Your task to perform on an android device: Set the phone to "Do not disturb". Image 0: 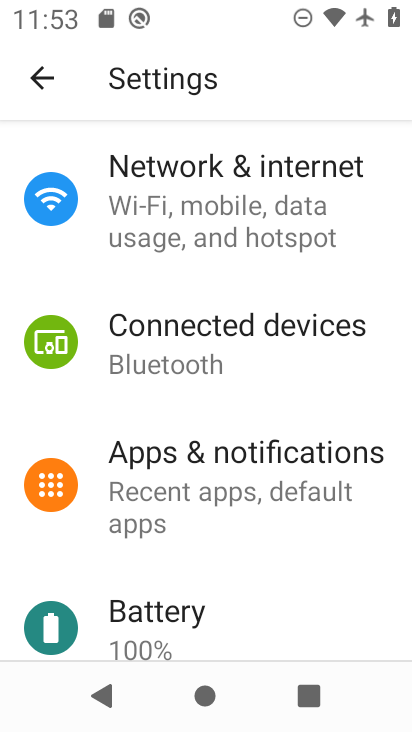
Step 0: drag from (300, 536) to (301, 220)
Your task to perform on an android device: Set the phone to "Do not disturb". Image 1: 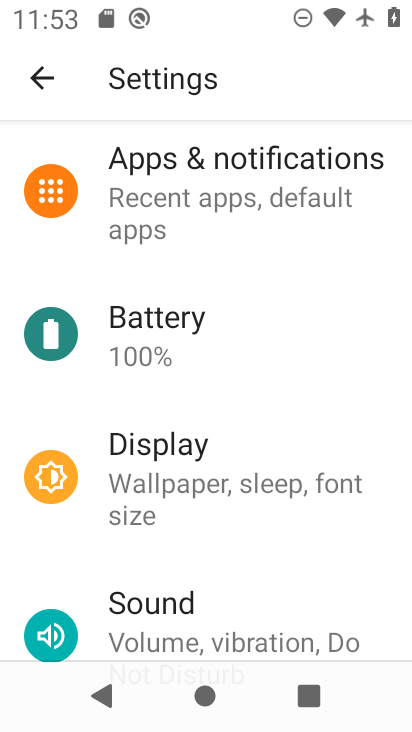
Step 1: drag from (278, 580) to (293, 303)
Your task to perform on an android device: Set the phone to "Do not disturb". Image 2: 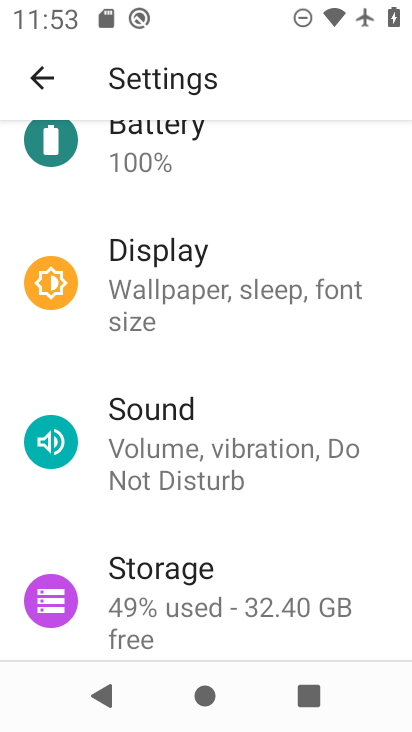
Step 2: click (183, 398)
Your task to perform on an android device: Set the phone to "Do not disturb". Image 3: 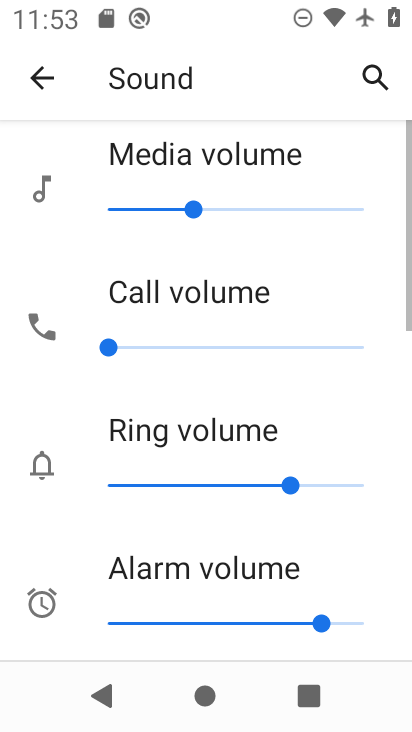
Step 3: drag from (297, 445) to (302, 82)
Your task to perform on an android device: Set the phone to "Do not disturb". Image 4: 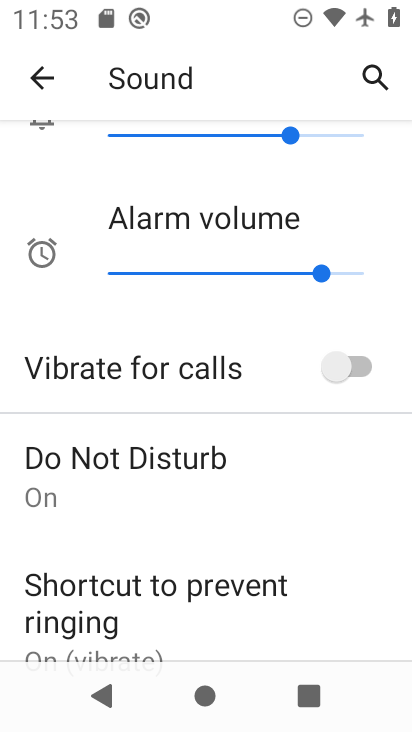
Step 4: drag from (213, 560) to (217, 317)
Your task to perform on an android device: Set the phone to "Do not disturb". Image 5: 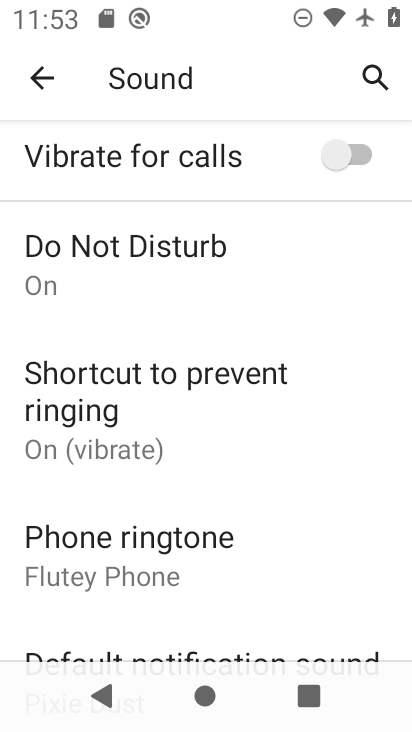
Step 5: click (160, 272)
Your task to perform on an android device: Set the phone to "Do not disturb". Image 6: 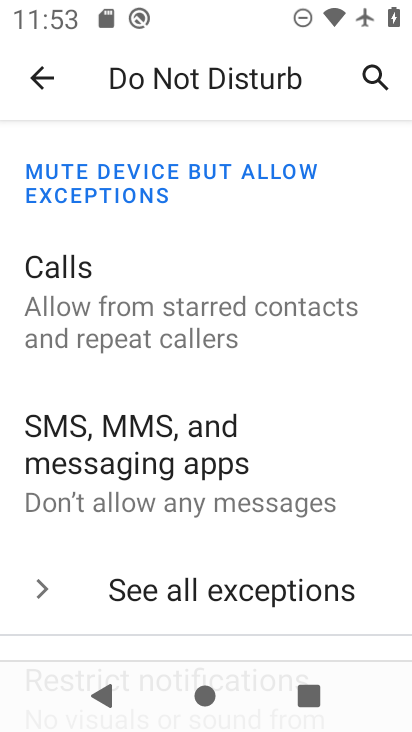
Step 6: task complete